Your task to perform on an android device: turn pop-ups on in chrome Image 0: 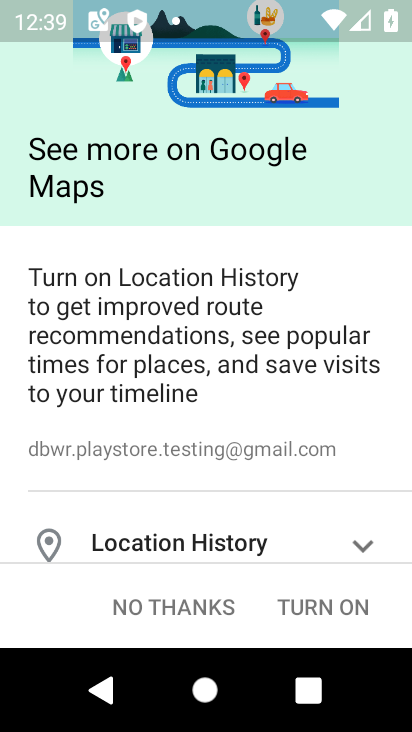
Step 0: press home button
Your task to perform on an android device: turn pop-ups on in chrome Image 1: 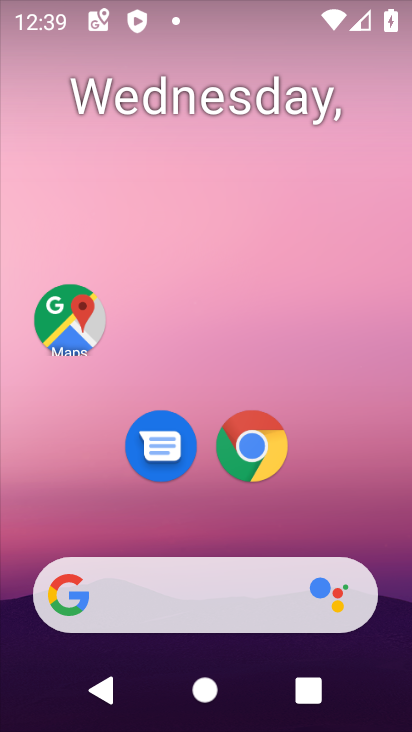
Step 1: click (214, 168)
Your task to perform on an android device: turn pop-ups on in chrome Image 2: 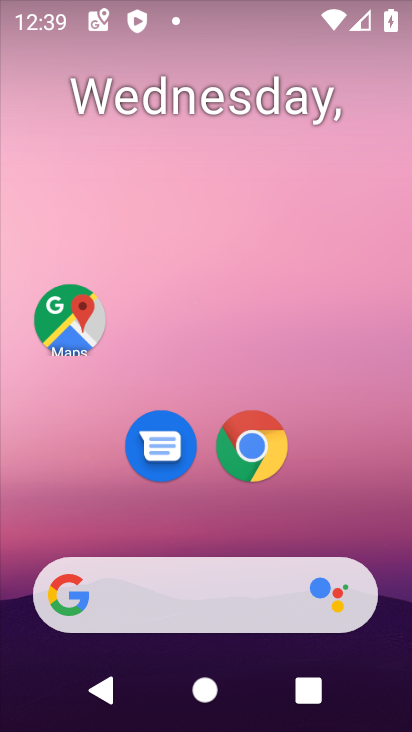
Step 2: drag from (197, 512) to (207, 113)
Your task to perform on an android device: turn pop-ups on in chrome Image 3: 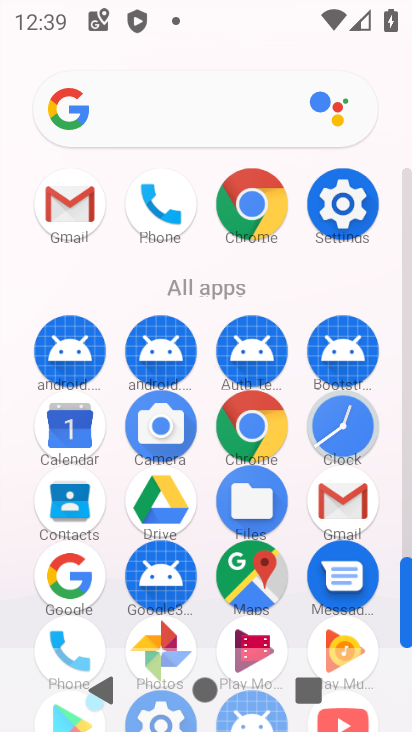
Step 3: click (254, 431)
Your task to perform on an android device: turn pop-ups on in chrome Image 4: 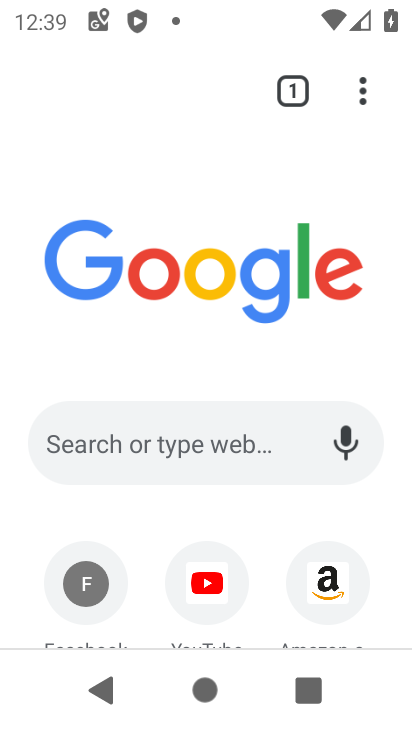
Step 4: click (368, 94)
Your task to perform on an android device: turn pop-ups on in chrome Image 5: 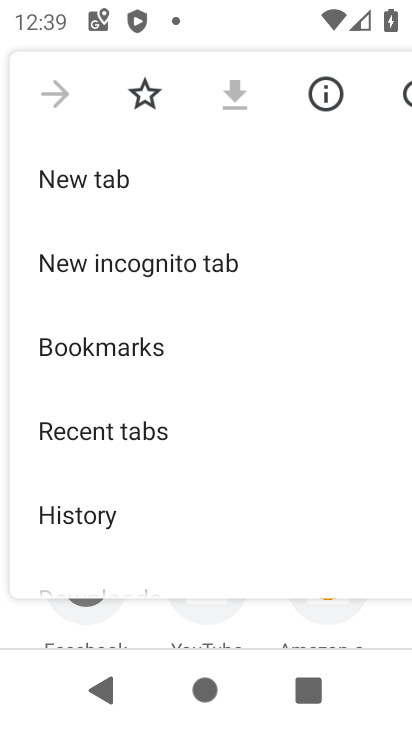
Step 5: drag from (235, 509) to (227, 133)
Your task to perform on an android device: turn pop-ups on in chrome Image 6: 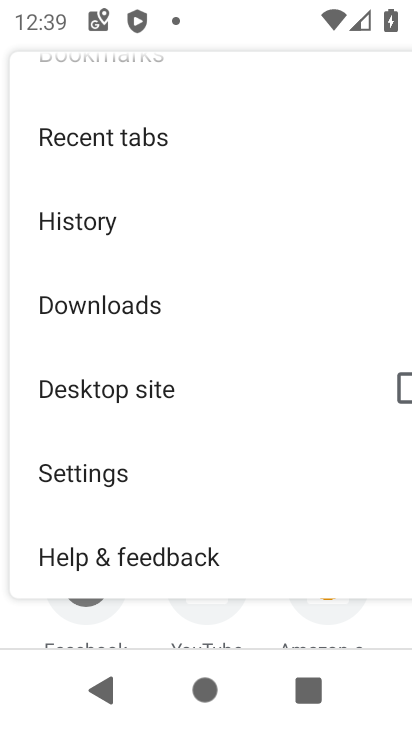
Step 6: click (143, 488)
Your task to perform on an android device: turn pop-ups on in chrome Image 7: 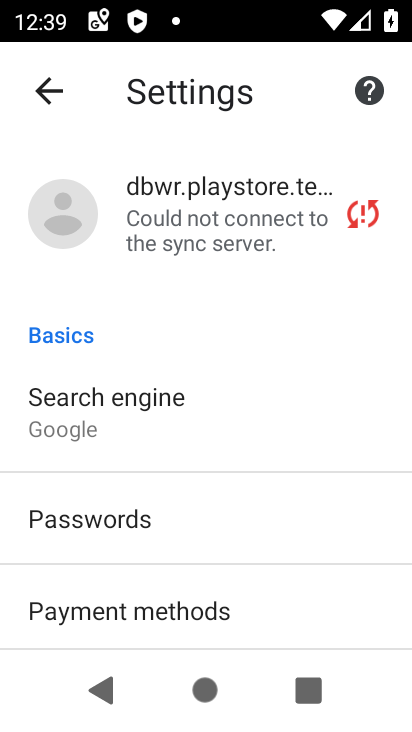
Step 7: drag from (122, 541) to (154, 195)
Your task to perform on an android device: turn pop-ups on in chrome Image 8: 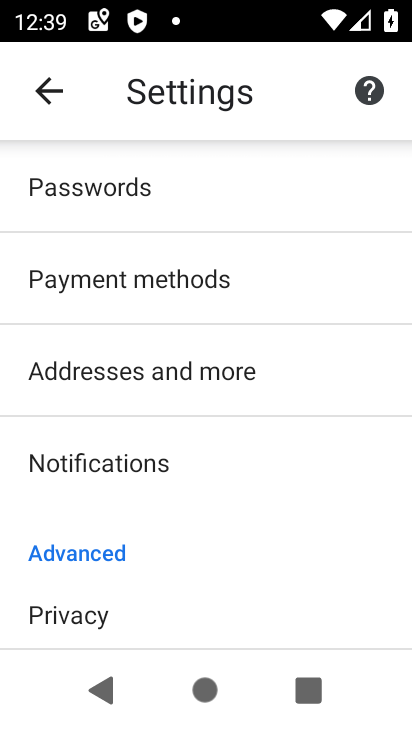
Step 8: drag from (171, 525) to (176, 249)
Your task to perform on an android device: turn pop-ups on in chrome Image 9: 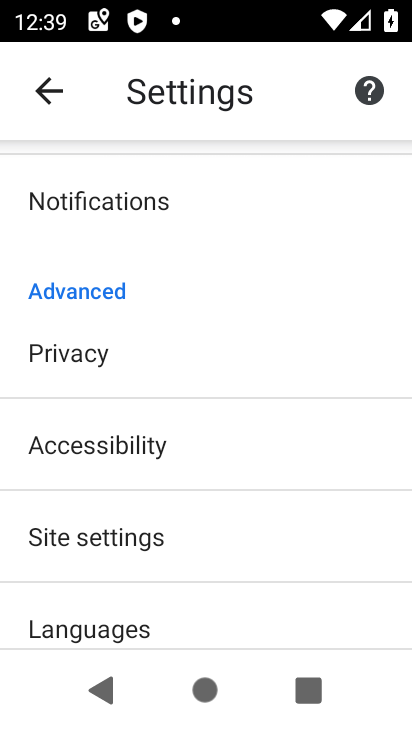
Step 9: click (145, 546)
Your task to perform on an android device: turn pop-ups on in chrome Image 10: 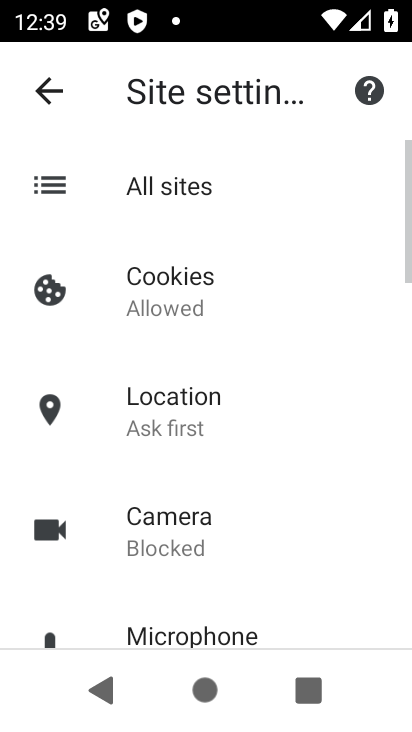
Step 10: drag from (195, 555) to (244, 230)
Your task to perform on an android device: turn pop-ups on in chrome Image 11: 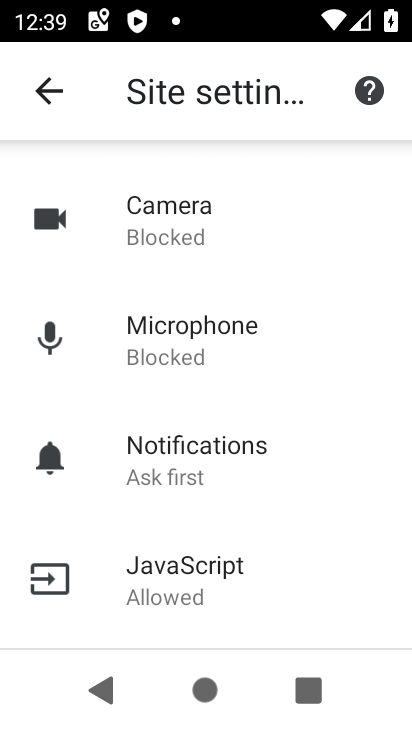
Step 11: drag from (209, 579) to (219, 257)
Your task to perform on an android device: turn pop-ups on in chrome Image 12: 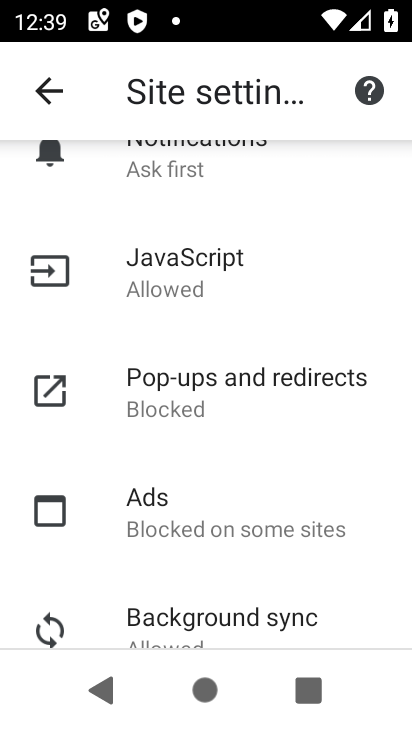
Step 12: click (212, 420)
Your task to perform on an android device: turn pop-ups on in chrome Image 13: 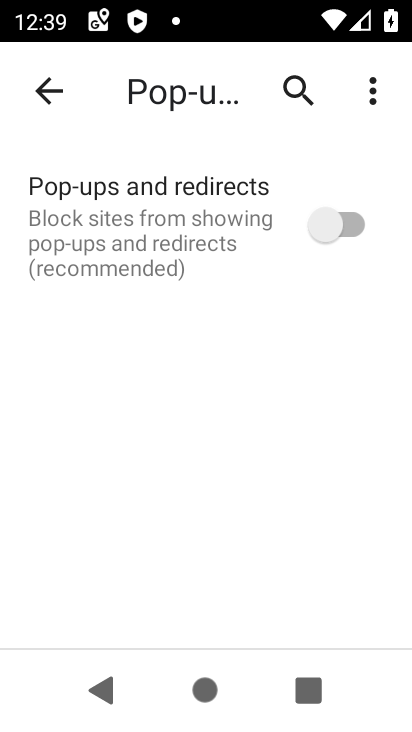
Step 13: click (311, 228)
Your task to perform on an android device: turn pop-ups on in chrome Image 14: 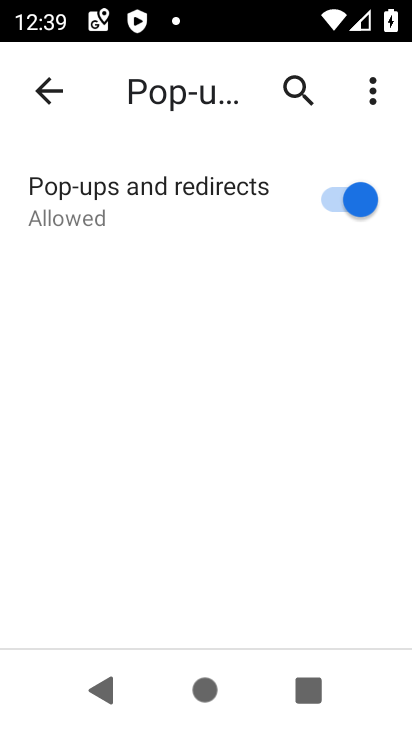
Step 14: task complete